Your task to perform on an android device: add a contact Image 0: 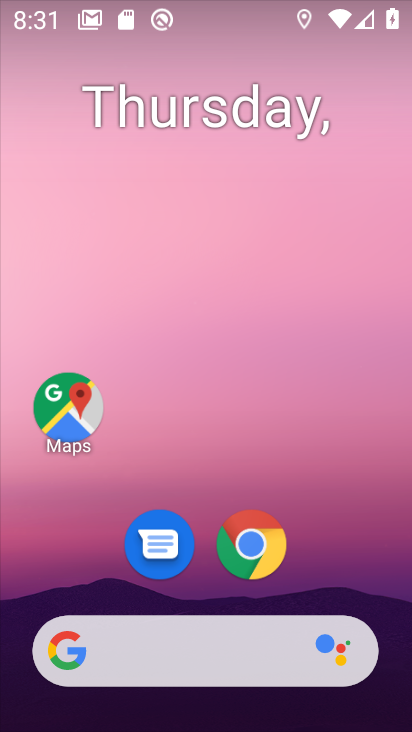
Step 0: drag from (331, 544) to (305, 53)
Your task to perform on an android device: add a contact Image 1: 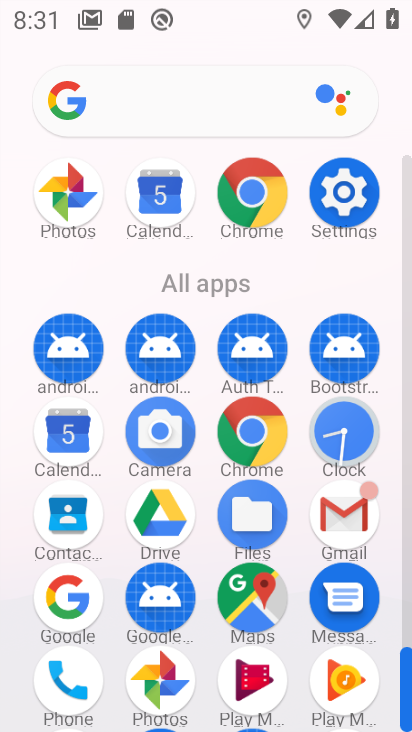
Step 1: click (67, 511)
Your task to perform on an android device: add a contact Image 2: 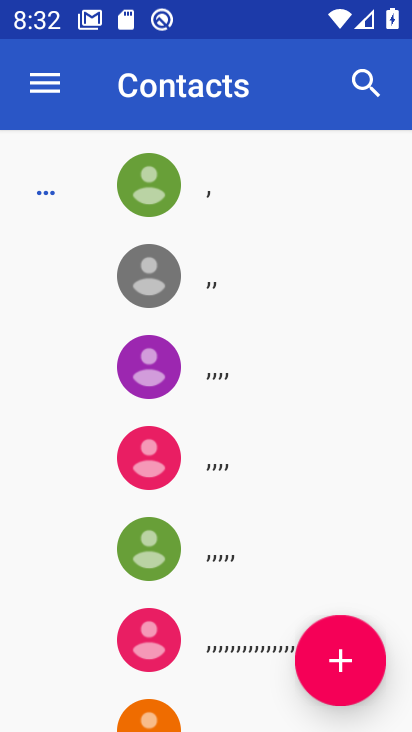
Step 2: click (329, 645)
Your task to perform on an android device: add a contact Image 3: 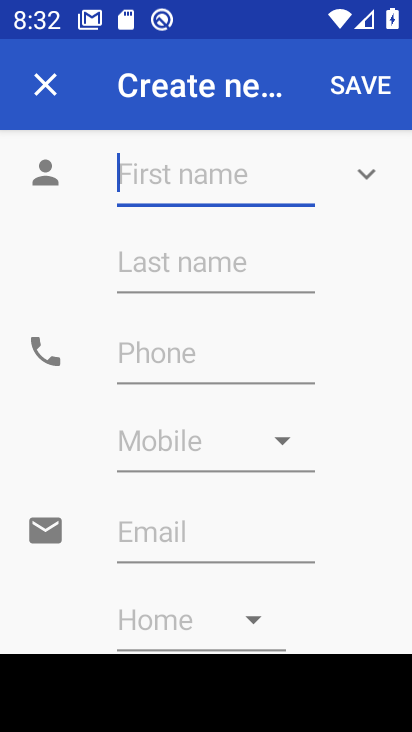
Step 3: click (161, 174)
Your task to perform on an android device: add a contact Image 4: 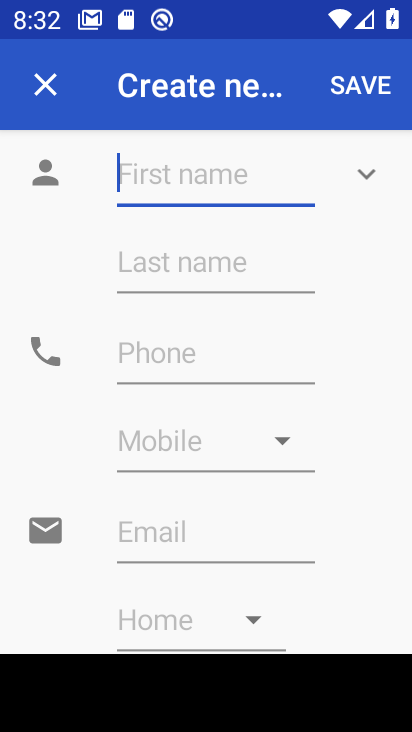
Step 4: type "hytre"
Your task to perform on an android device: add a contact Image 5: 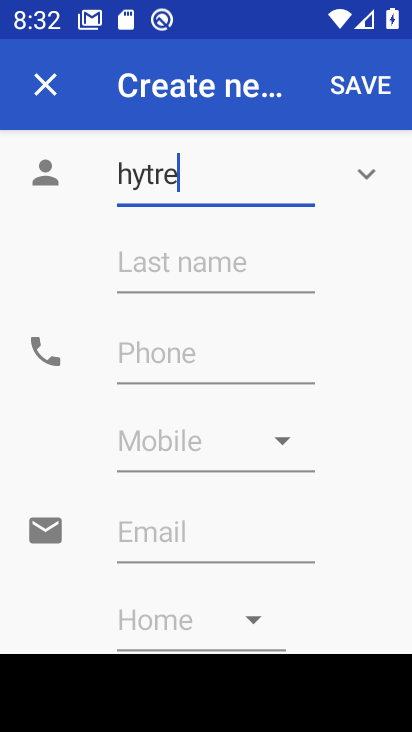
Step 5: type ""
Your task to perform on an android device: add a contact Image 6: 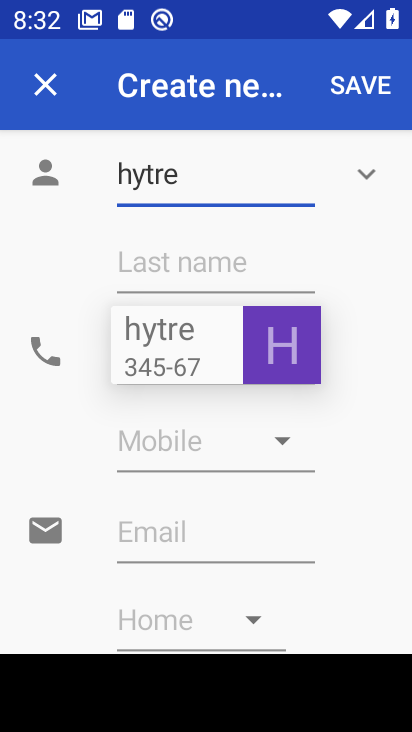
Step 6: click (190, 263)
Your task to perform on an android device: add a contact Image 7: 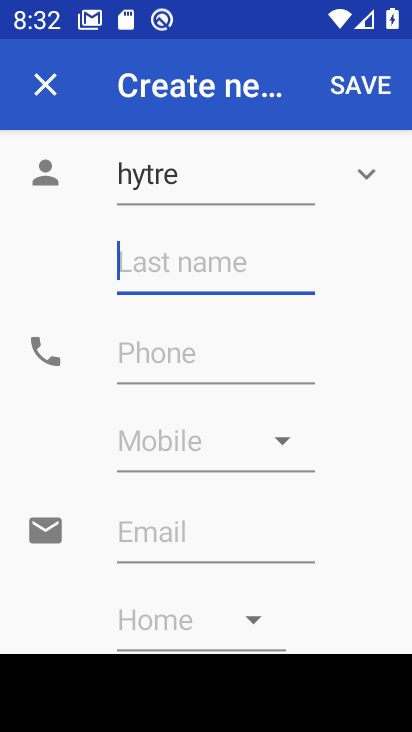
Step 7: type "loi"
Your task to perform on an android device: add a contact Image 8: 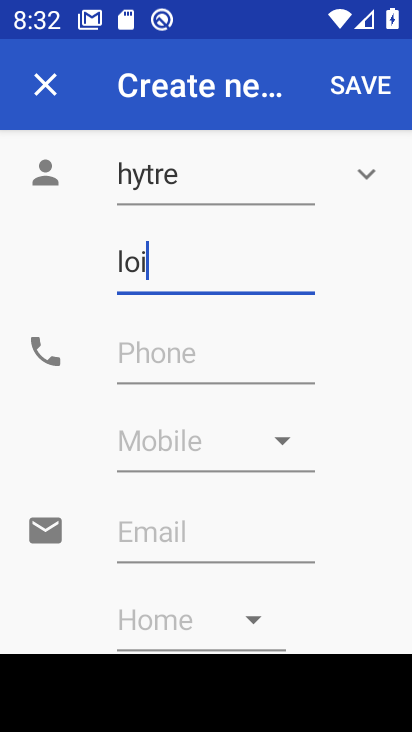
Step 8: type ""
Your task to perform on an android device: add a contact Image 9: 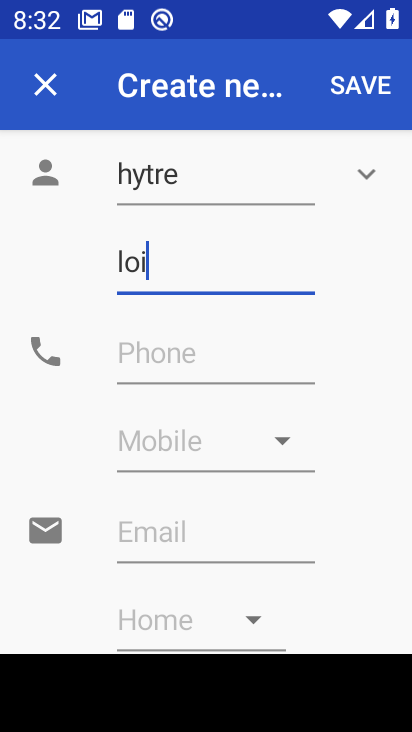
Step 9: click (185, 360)
Your task to perform on an android device: add a contact Image 10: 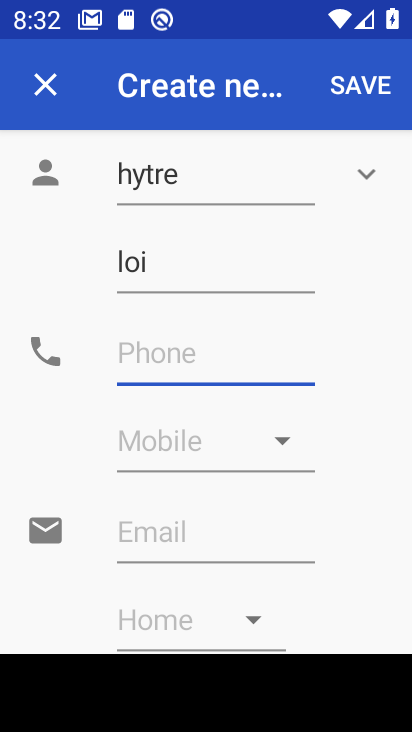
Step 10: type "07645678"
Your task to perform on an android device: add a contact Image 11: 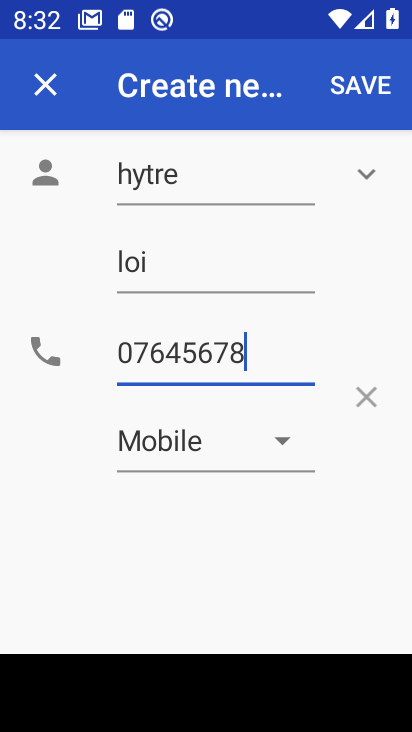
Step 11: type ""
Your task to perform on an android device: add a contact Image 12: 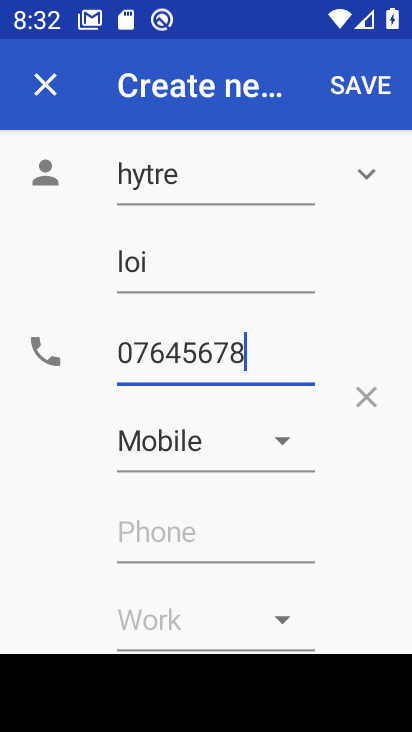
Step 12: click (166, 540)
Your task to perform on an android device: add a contact Image 13: 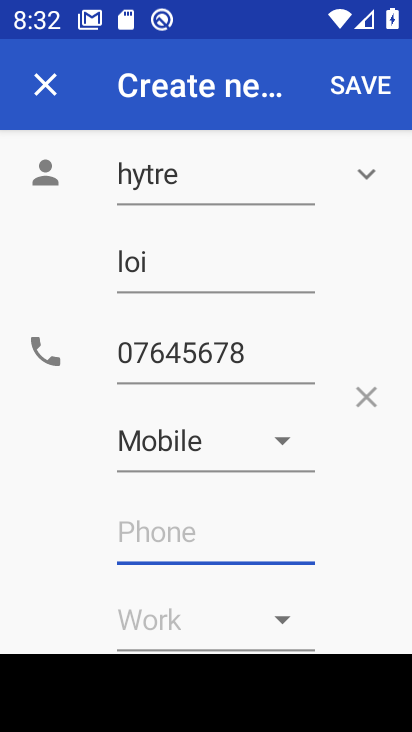
Step 13: type "098765767"
Your task to perform on an android device: add a contact Image 14: 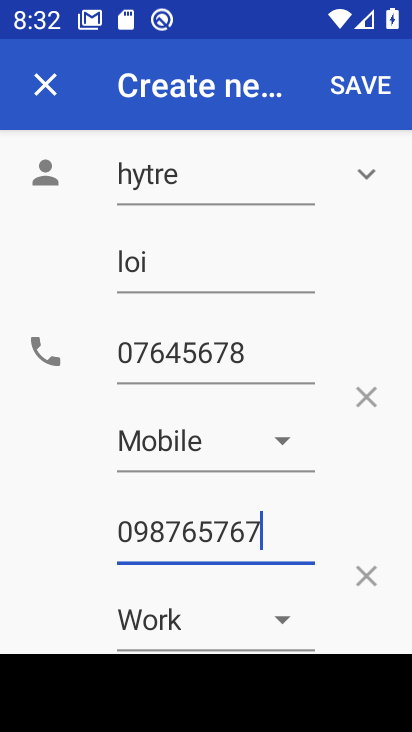
Step 14: type ""
Your task to perform on an android device: add a contact Image 15: 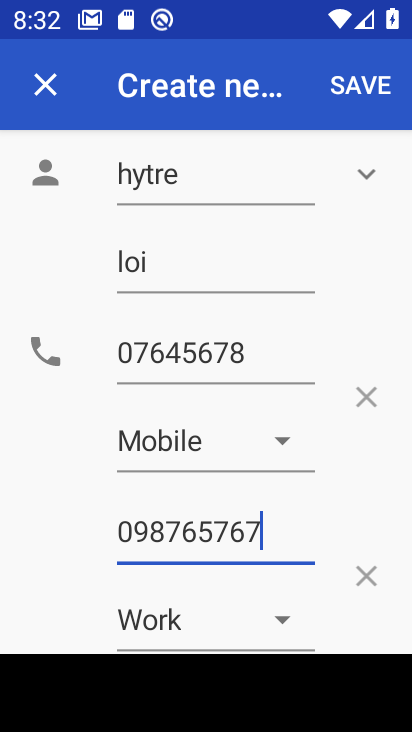
Step 15: click (209, 610)
Your task to perform on an android device: add a contact Image 16: 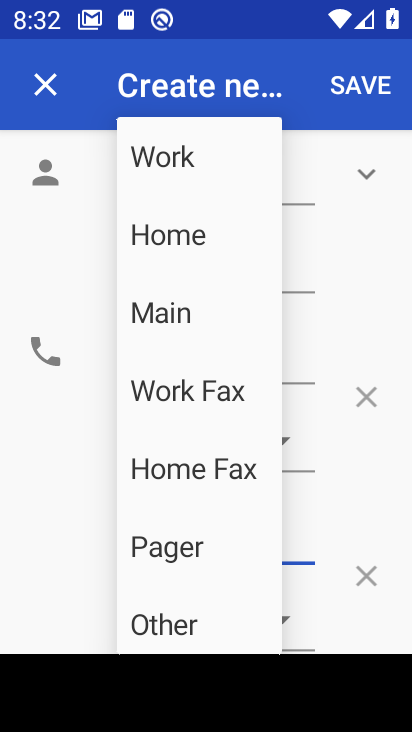
Step 16: click (170, 605)
Your task to perform on an android device: add a contact Image 17: 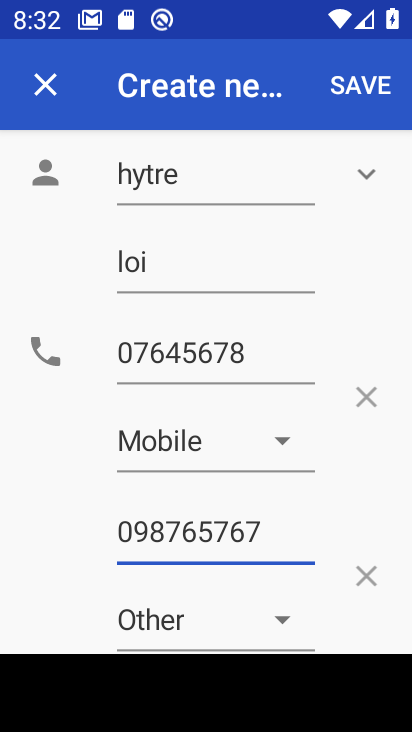
Step 17: click (346, 80)
Your task to perform on an android device: add a contact Image 18: 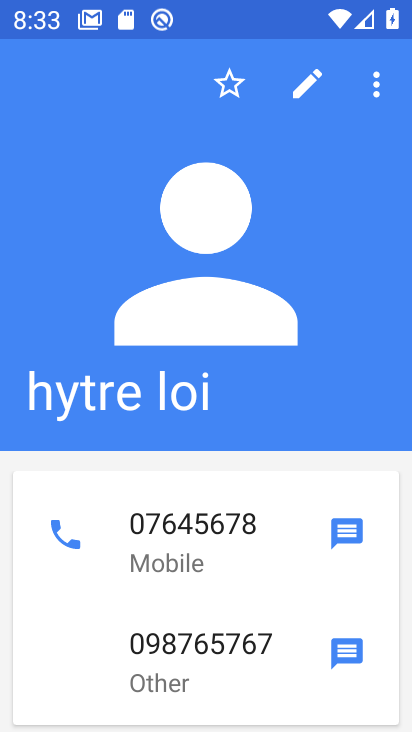
Step 18: task complete